Your task to perform on an android device: toggle priority inbox in the gmail app Image 0: 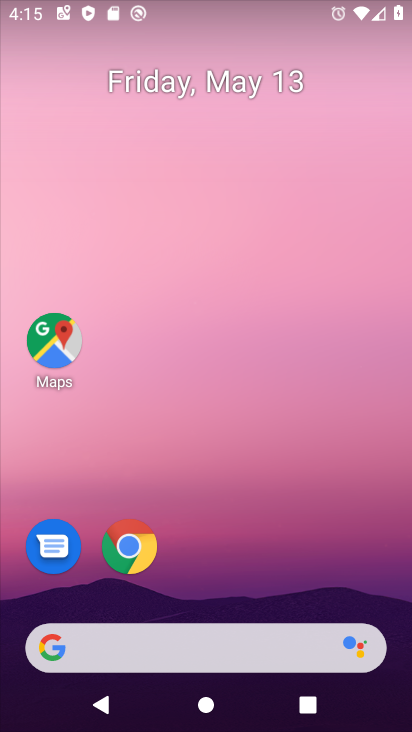
Step 0: drag from (207, 611) to (287, 124)
Your task to perform on an android device: toggle priority inbox in the gmail app Image 1: 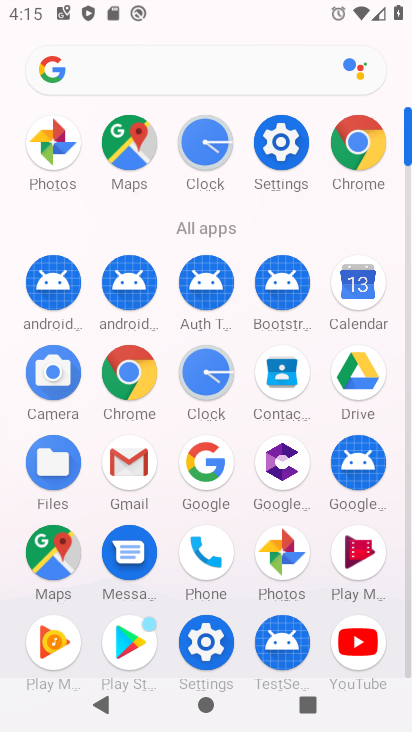
Step 1: click (133, 468)
Your task to perform on an android device: toggle priority inbox in the gmail app Image 2: 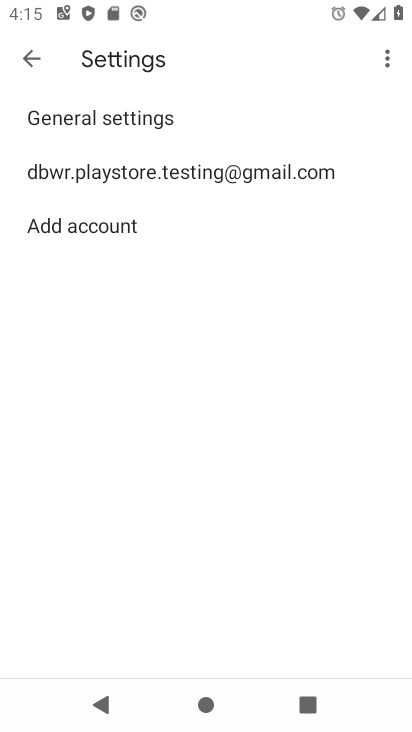
Step 2: click (142, 163)
Your task to perform on an android device: toggle priority inbox in the gmail app Image 3: 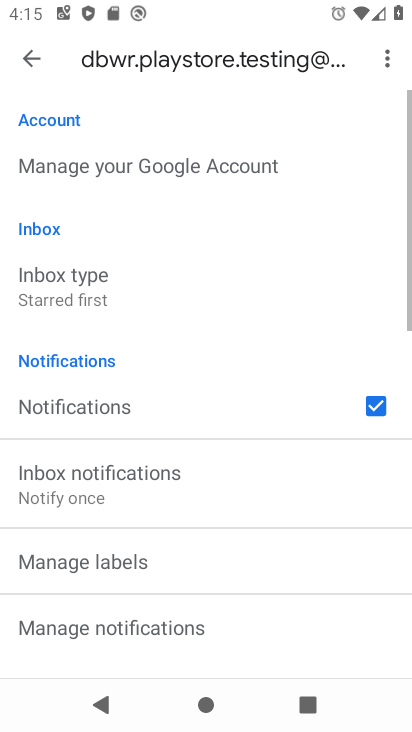
Step 3: click (108, 304)
Your task to perform on an android device: toggle priority inbox in the gmail app Image 4: 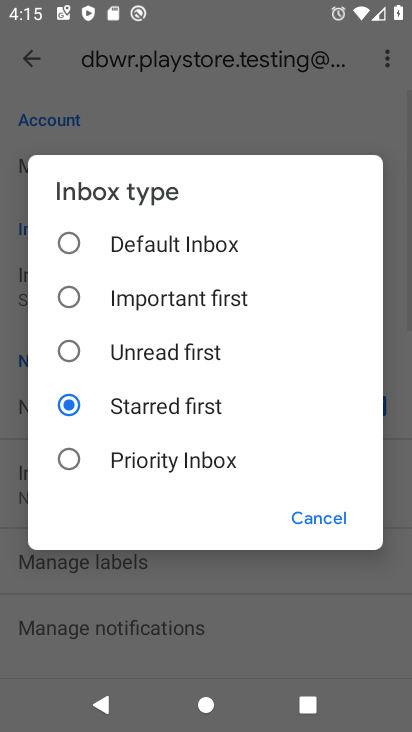
Step 4: click (132, 465)
Your task to perform on an android device: toggle priority inbox in the gmail app Image 5: 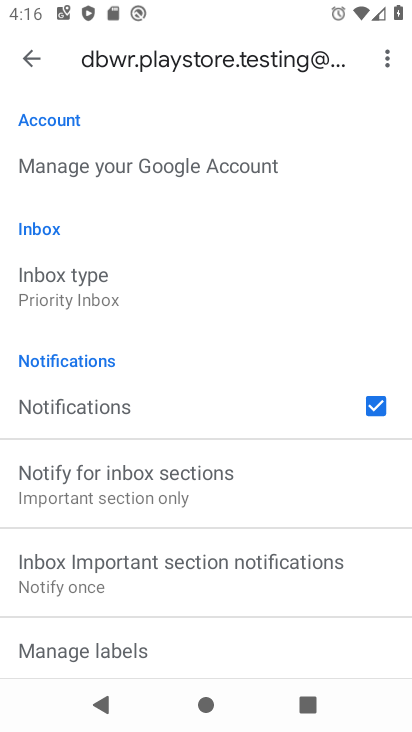
Step 5: task complete